Your task to perform on an android device: open app "TextNow: Call + Text Unlimited" Image 0: 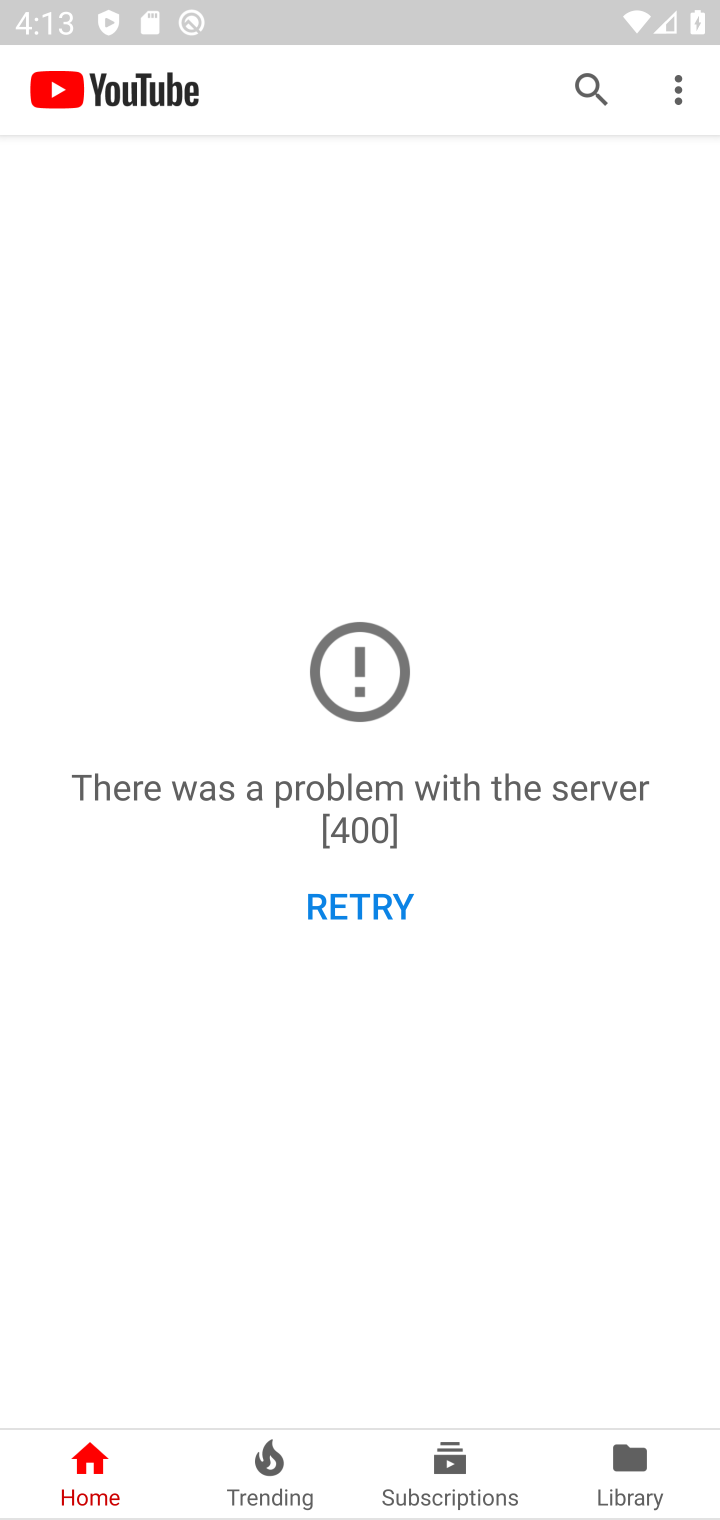
Step 0: press home button
Your task to perform on an android device: open app "TextNow: Call + Text Unlimited" Image 1: 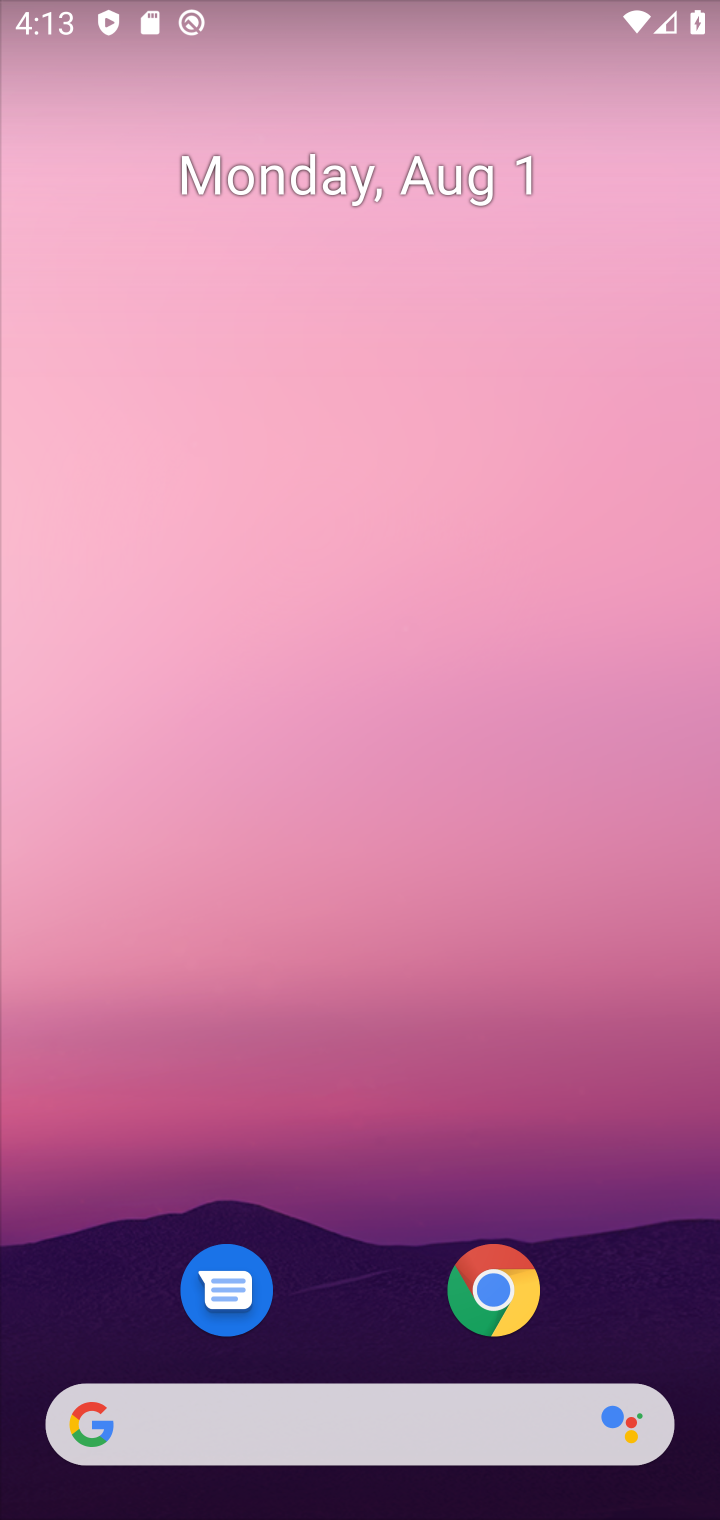
Step 1: drag from (367, 1407) to (287, 115)
Your task to perform on an android device: open app "TextNow: Call + Text Unlimited" Image 2: 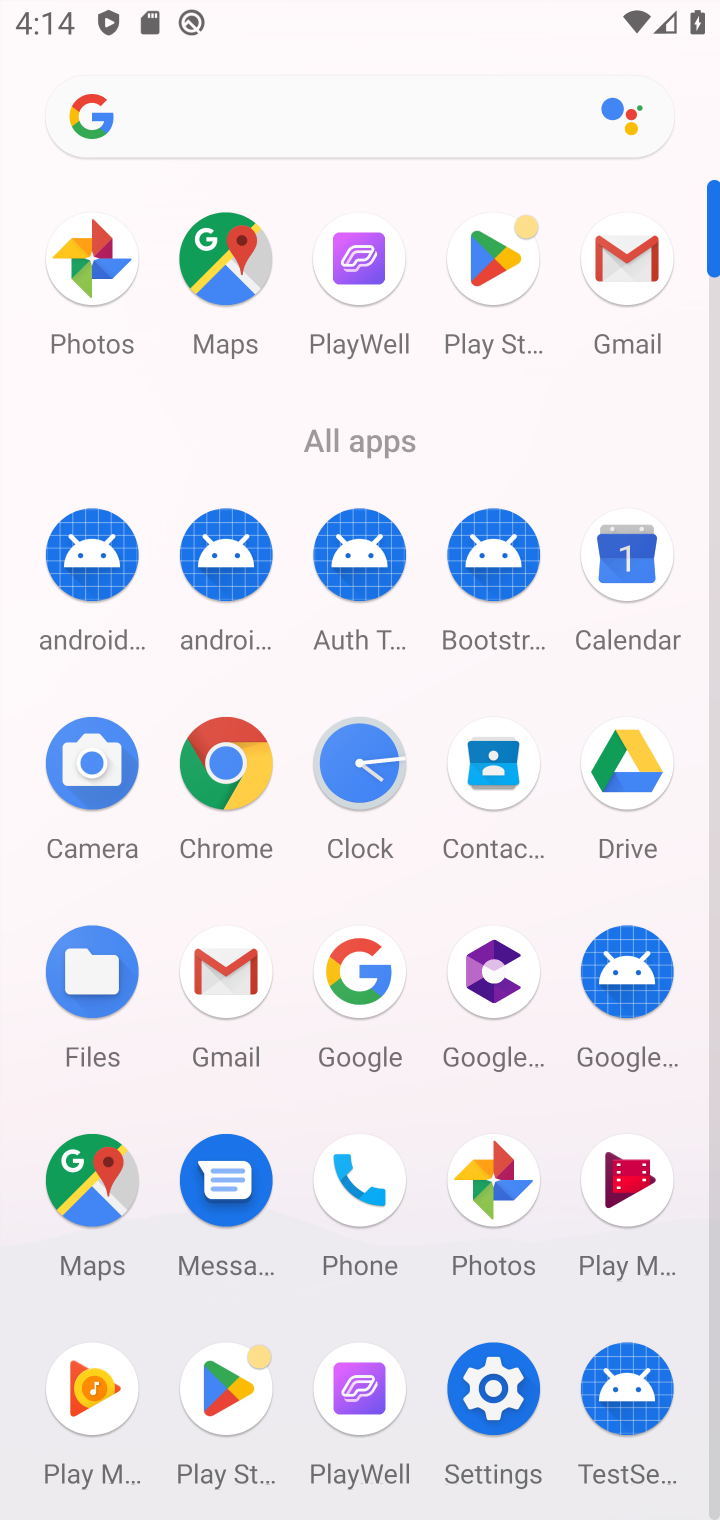
Step 2: click (499, 254)
Your task to perform on an android device: open app "TextNow: Call + Text Unlimited" Image 3: 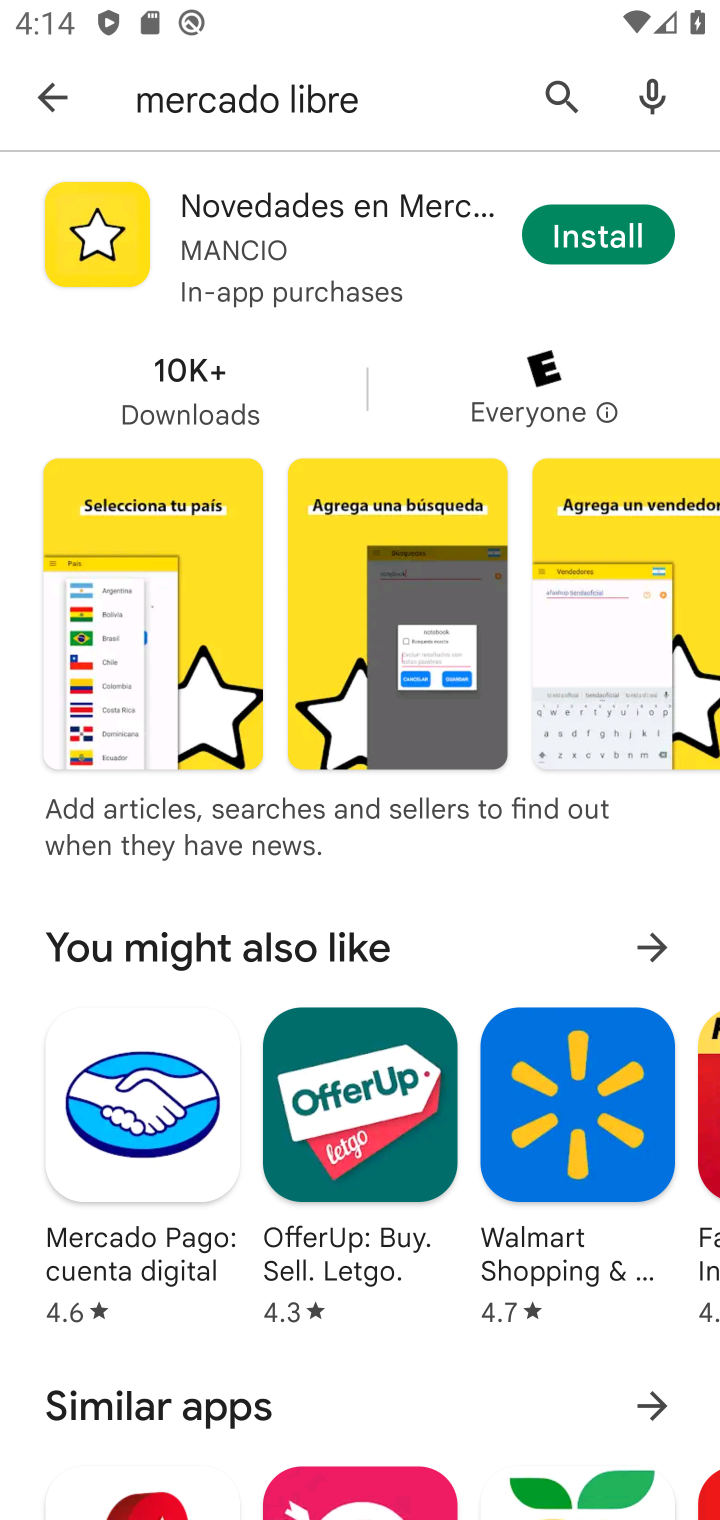
Step 3: click (572, 102)
Your task to perform on an android device: open app "TextNow: Call + Text Unlimited" Image 4: 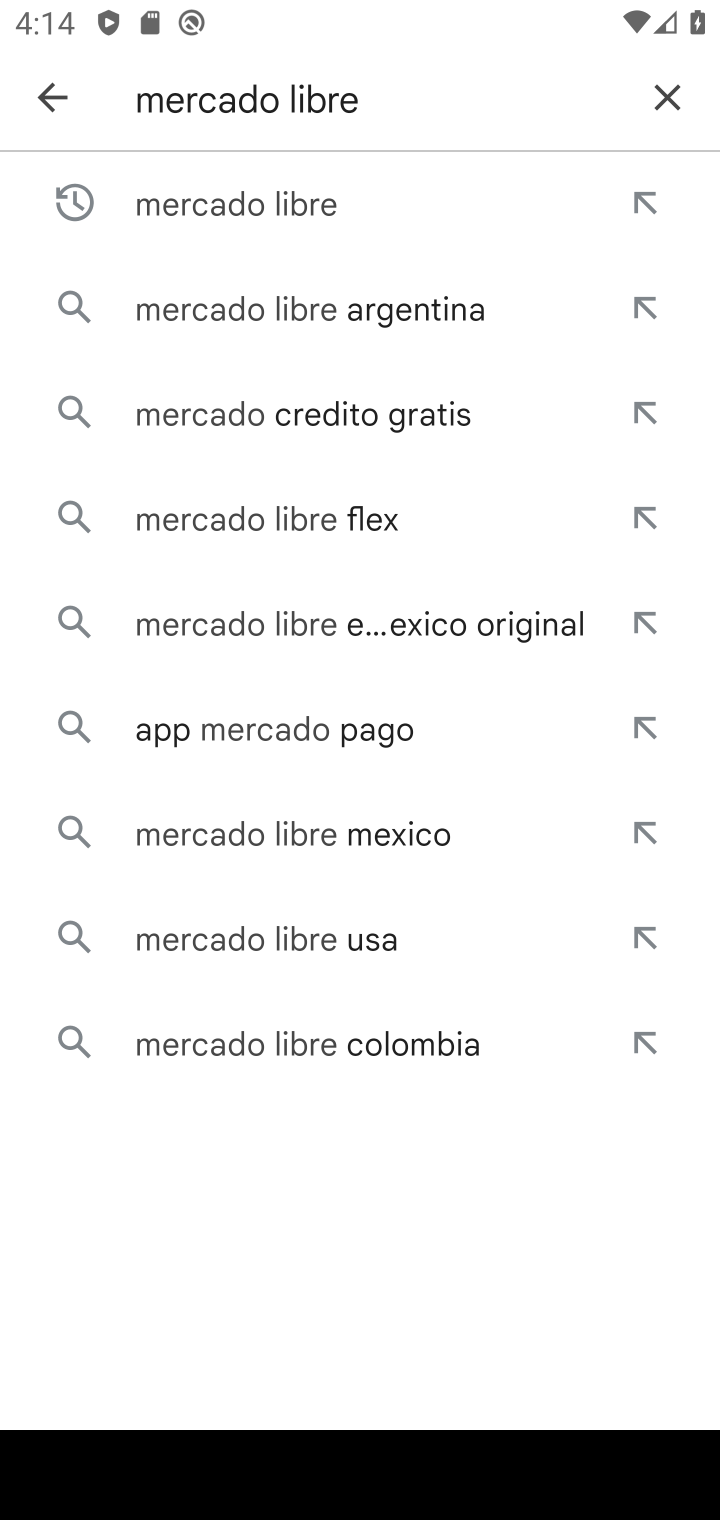
Step 4: click (678, 95)
Your task to perform on an android device: open app "TextNow: Call + Text Unlimited" Image 5: 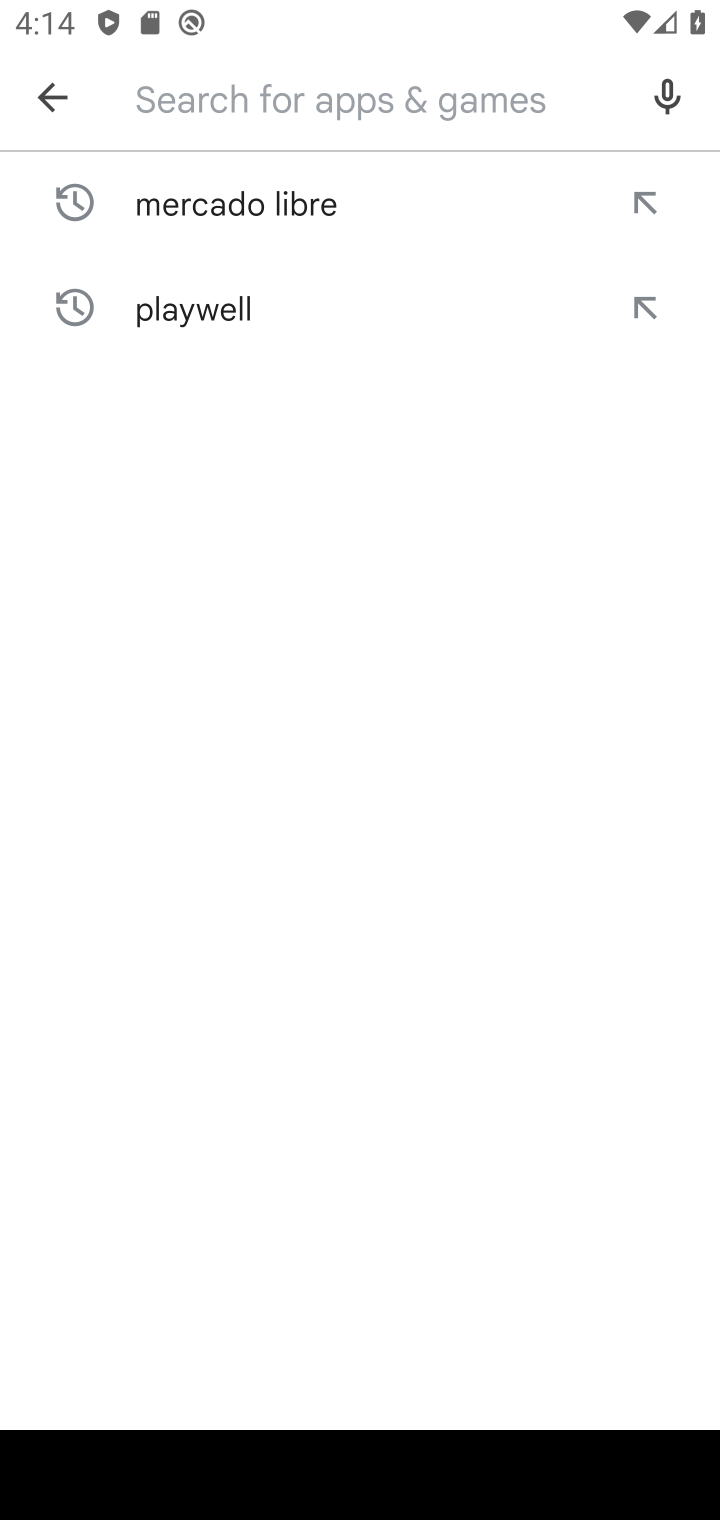
Step 5: type "textnow: call + text unlimited"
Your task to perform on an android device: open app "TextNow: Call + Text Unlimited" Image 6: 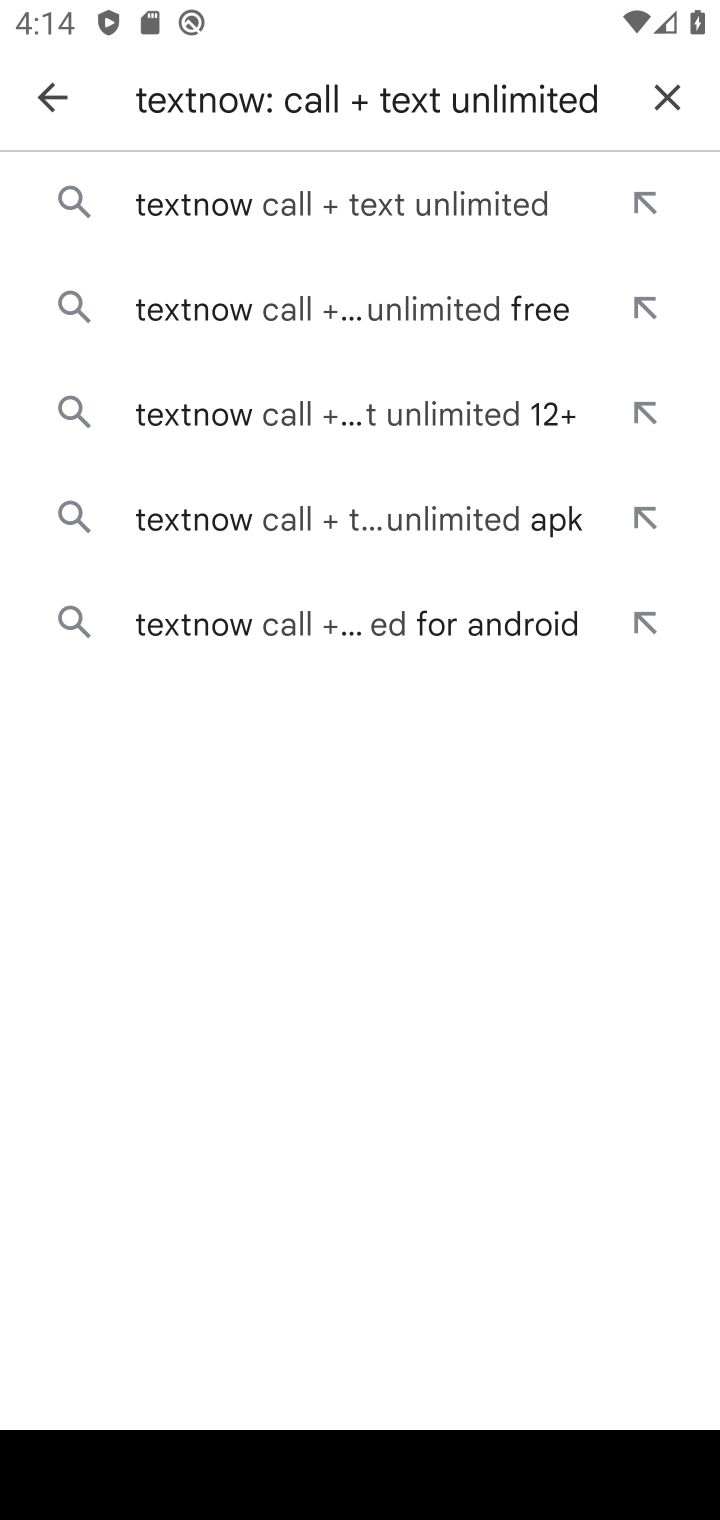
Step 6: click (497, 215)
Your task to perform on an android device: open app "TextNow: Call + Text Unlimited" Image 7: 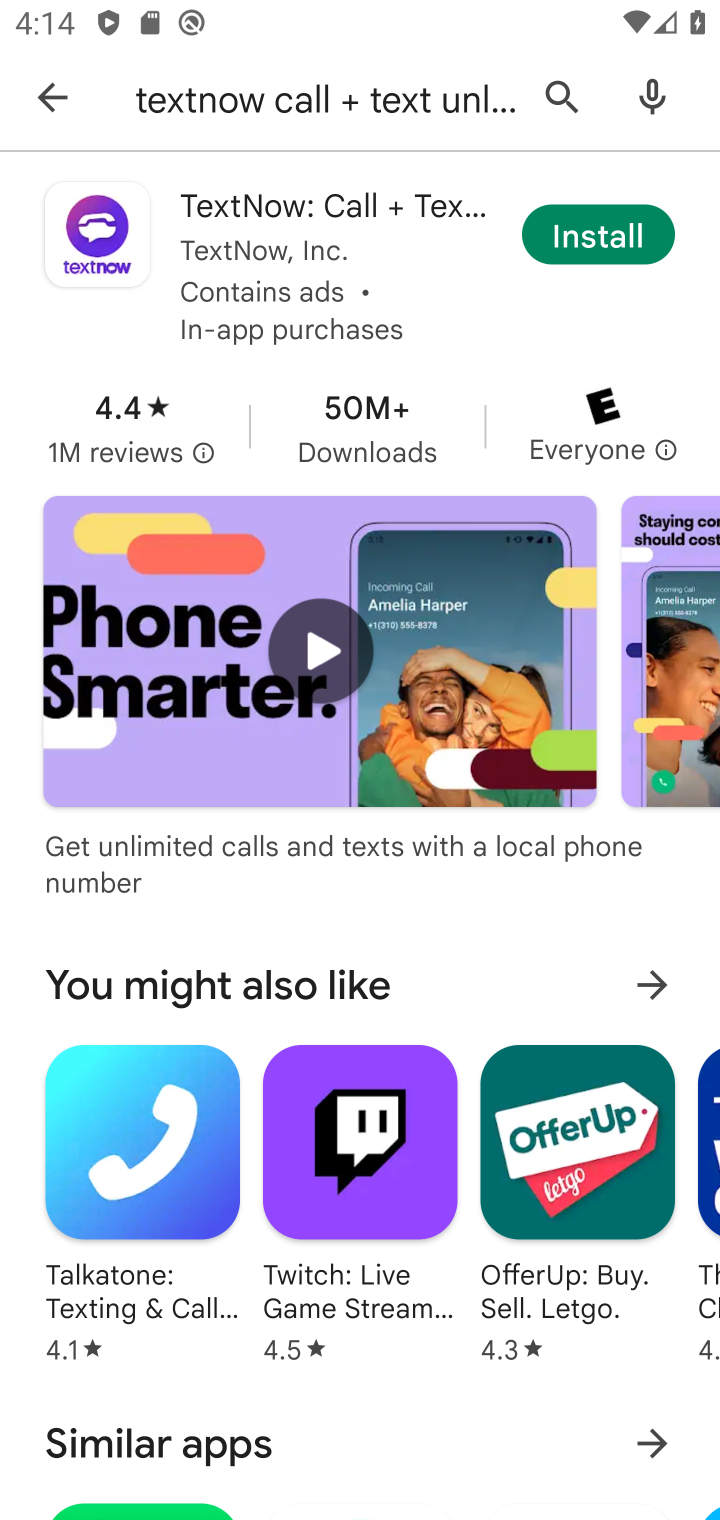
Step 7: task complete